Your task to perform on an android device: Do I have any events tomorrow? Image 0: 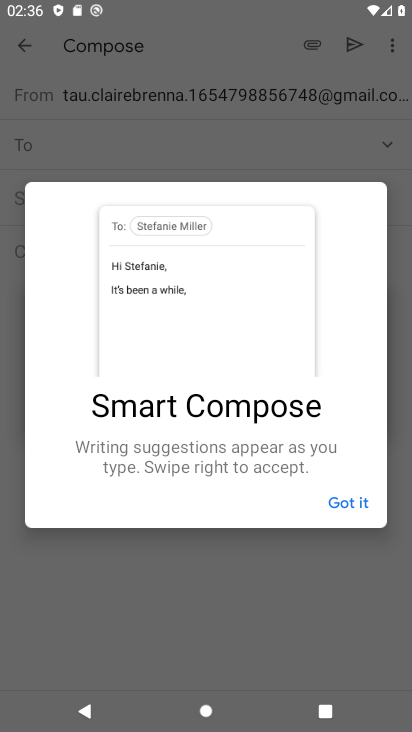
Step 0: press home button
Your task to perform on an android device: Do I have any events tomorrow? Image 1: 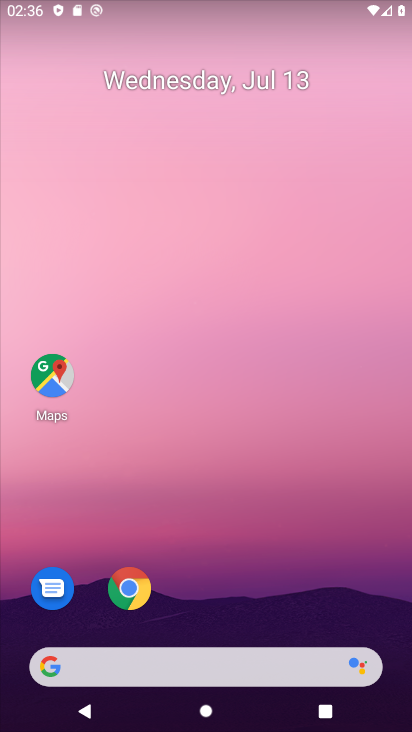
Step 1: drag from (306, 546) to (327, 31)
Your task to perform on an android device: Do I have any events tomorrow? Image 2: 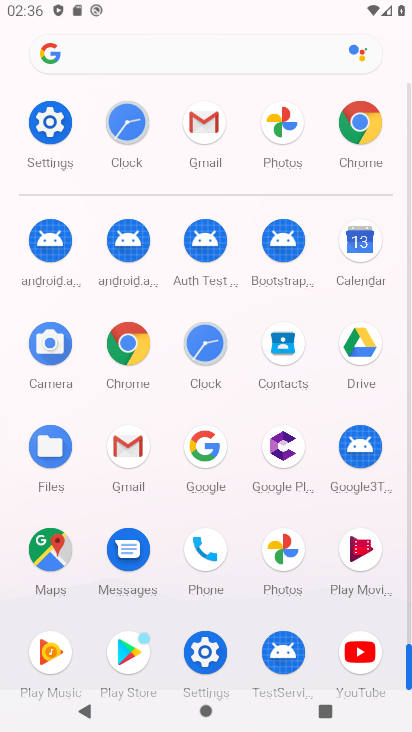
Step 2: click (377, 245)
Your task to perform on an android device: Do I have any events tomorrow? Image 3: 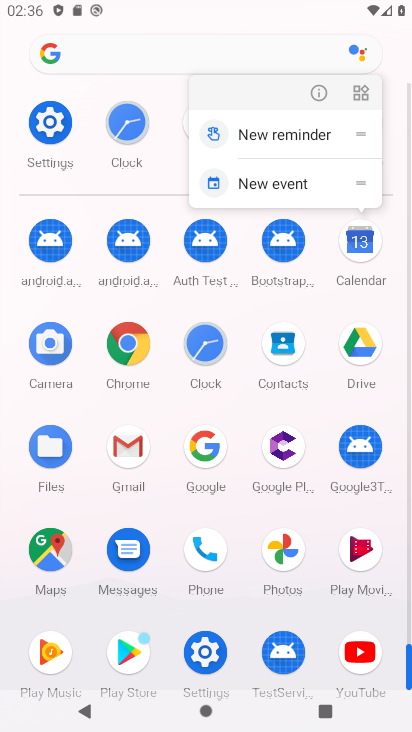
Step 3: click (376, 241)
Your task to perform on an android device: Do I have any events tomorrow? Image 4: 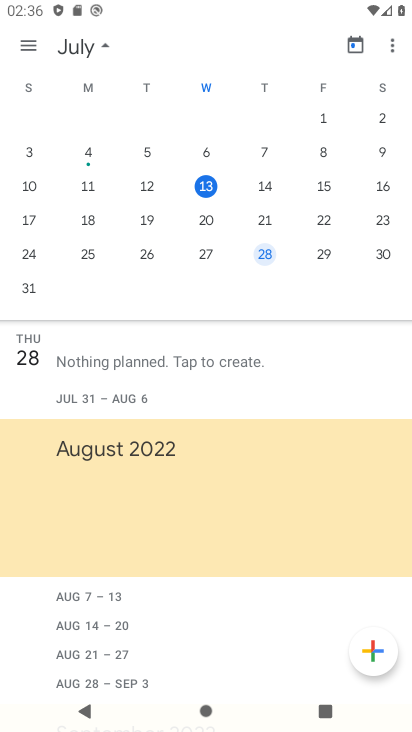
Step 4: click (263, 186)
Your task to perform on an android device: Do I have any events tomorrow? Image 5: 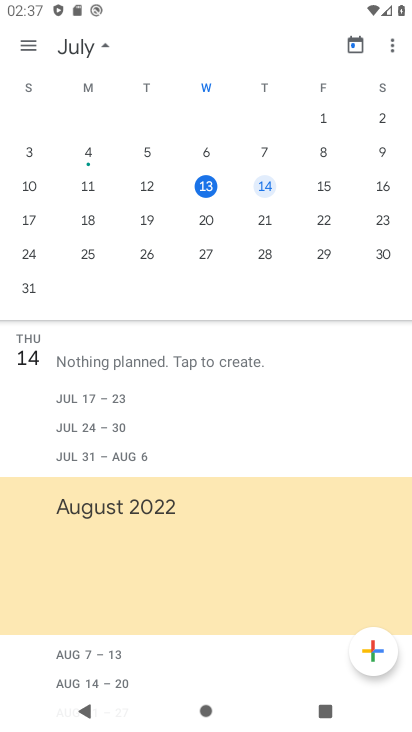
Step 5: task complete